Your task to perform on an android device: See recent photos Image 0: 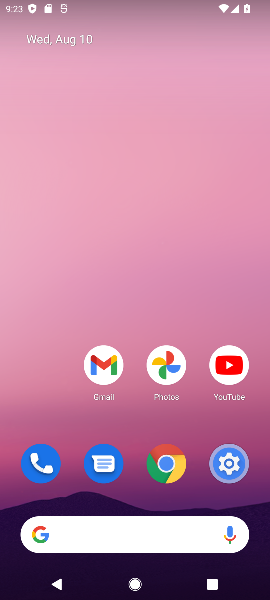
Step 0: click (159, 368)
Your task to perform on an android device: See recent photos Image 1: 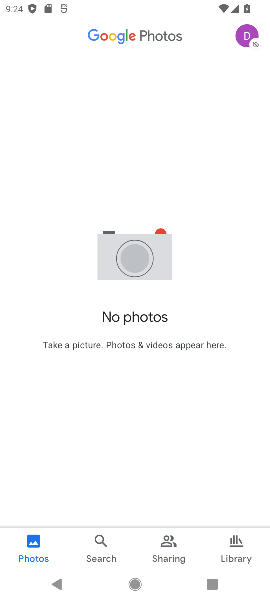
Step 1: task complete